Your task to perform on an android device: remove spam from my inbox in the gmail app Image 0: 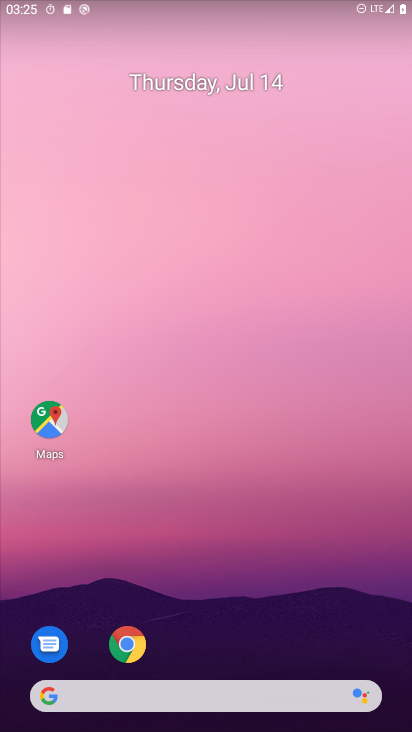
Step 0: drag from (266, 629) to (231, 28)
Your task to perform on an android device: remove spam from my inbox in the gmail app Image 1: 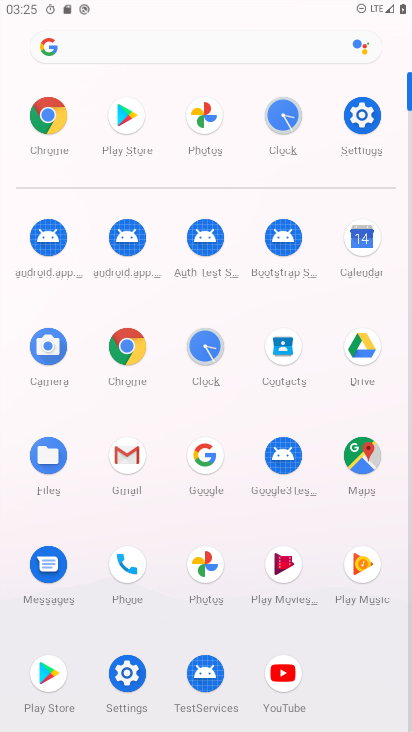
Step 1: click (129, 452)
Your task to perform on an android device: remove spam from my inbox in the gmail app Image 2: 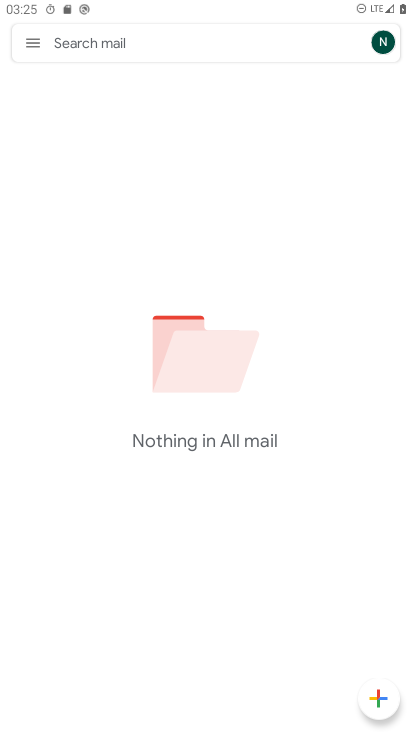
Step 2: click (37, 44)
Your task to perform on an android device: remove spam from my inbox in the gmail app Image 3: 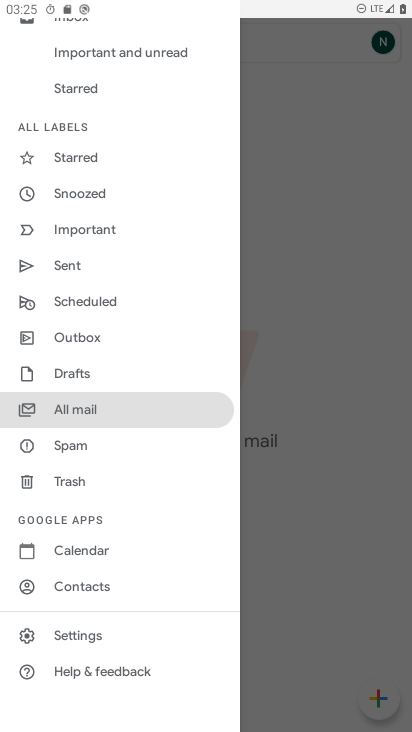
Step 3: drag from (109, 134) to (100, 537)
Your task to perform on an android device: remove spam from my inbox in the gmail app Image 4: 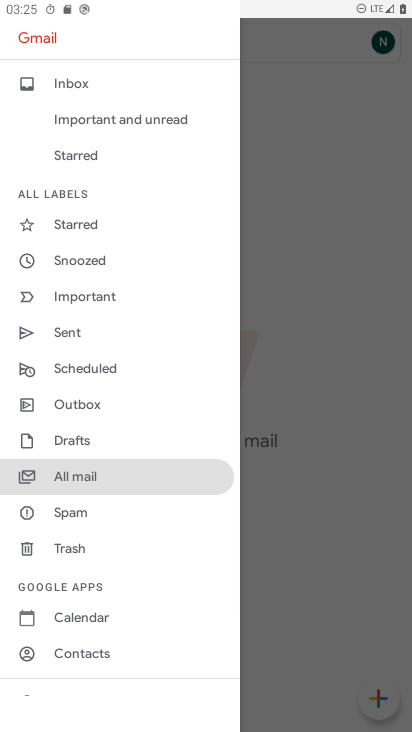
Step 4: click (67, 91)
Your task to perform on an android device: remove spam from my inbox in the gmail app Image 5: 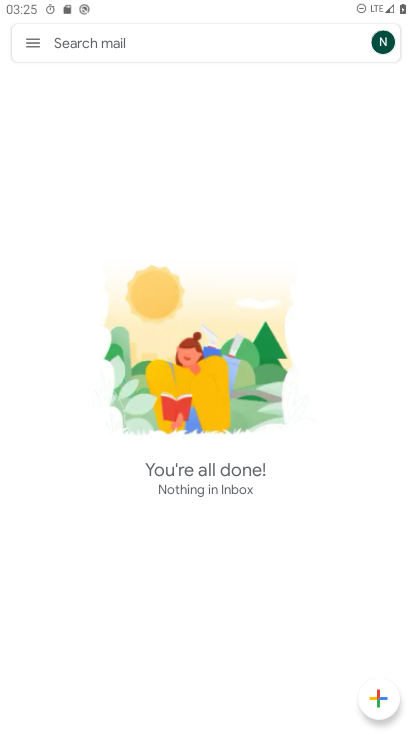
Step 5: task complete